Your task to perform on an android device: turn on sleep mode Image 0: 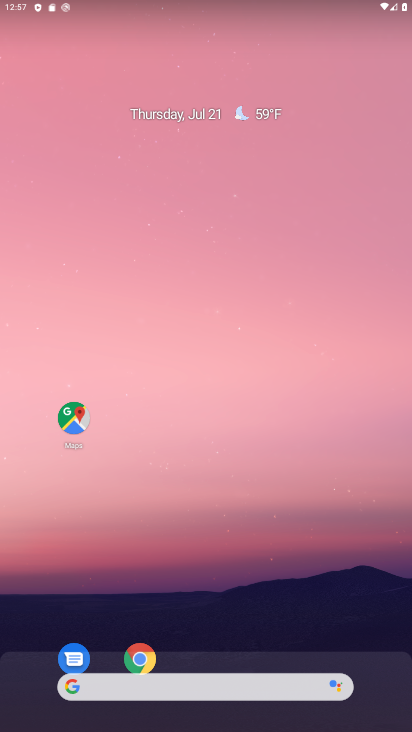
Step 0: click (388, 351)
Your task to perform on an android device: turn on sleep mode Image 1: 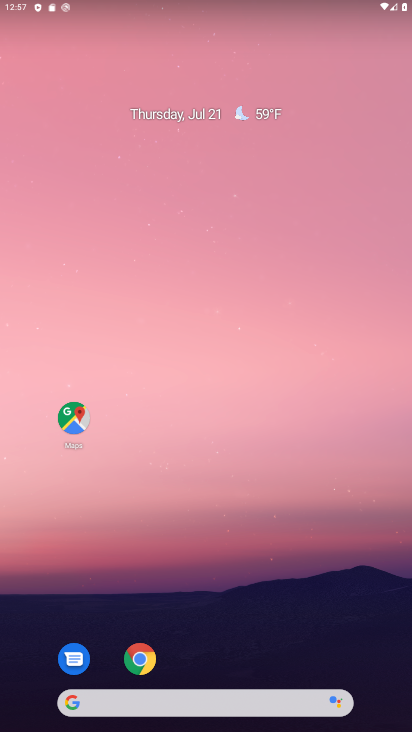
Step 1: drag from (246, 664) to (278, 156)
Your task to perform on an android device: turn on sleep mode Image 2: 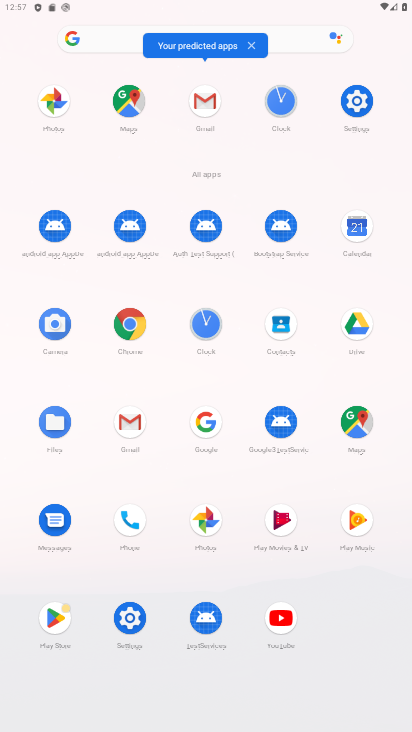
Step 2: click (354, 104)
Your task to perform on an android device: turn on sleep mode Image 3: 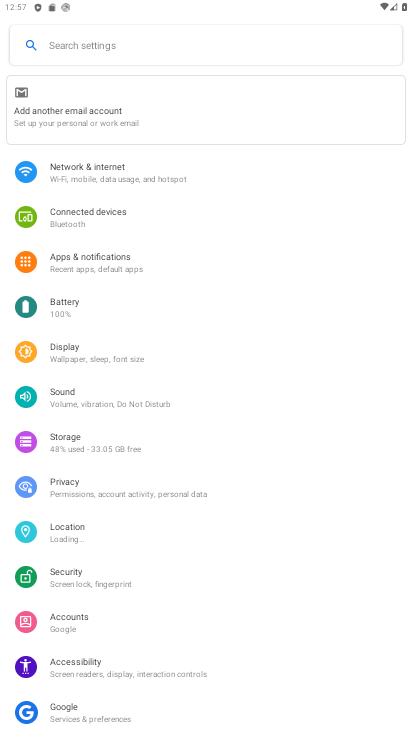
Step 3: click (105, 351)
Your task to perform on an android device: turn on sleep mode Image 4: 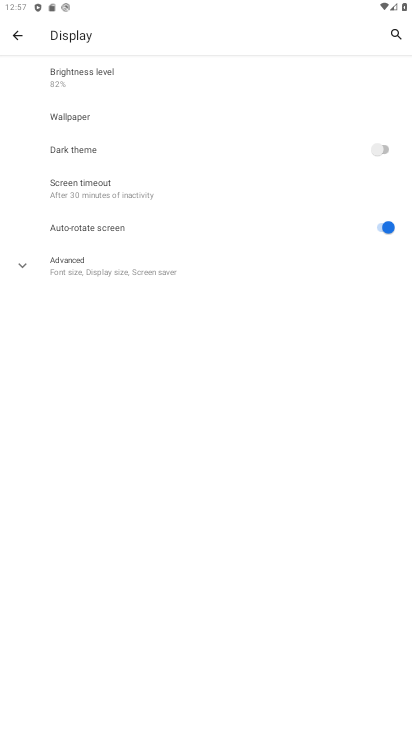
Step 4: click (109, 278)
Your task to perform on an android device: turn on sleep mode Image 5: 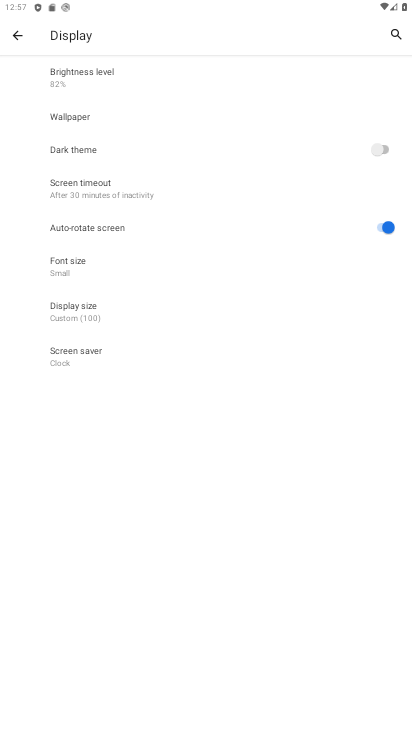
Step 5: task complete